Your task to perform on an android device: Show me the alarms in the clock app Image 0: 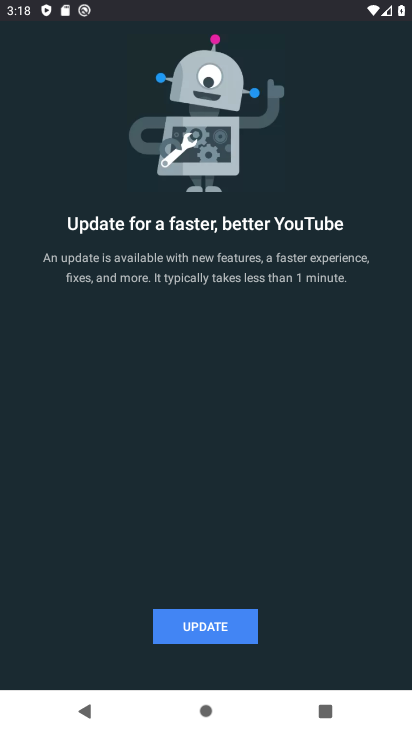
Step 0: press home button
Your task to perform on an android device: Show me the alarms in the clock app Image 1: 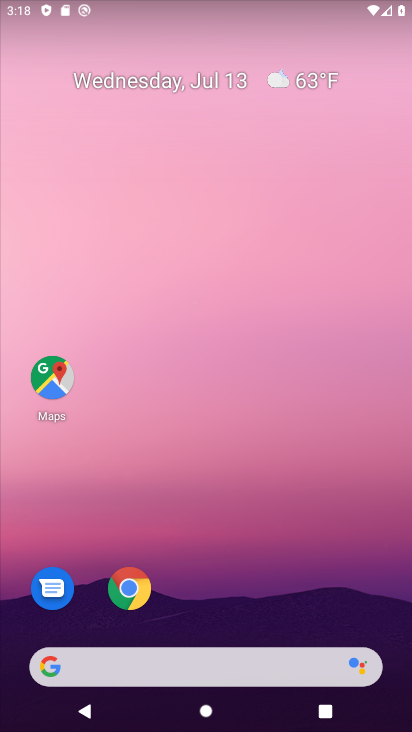
Step 1: drag from (300, 596) to (280, 3)
Your task to perform on an android device: Show me the alarms in the clock app Image 2: 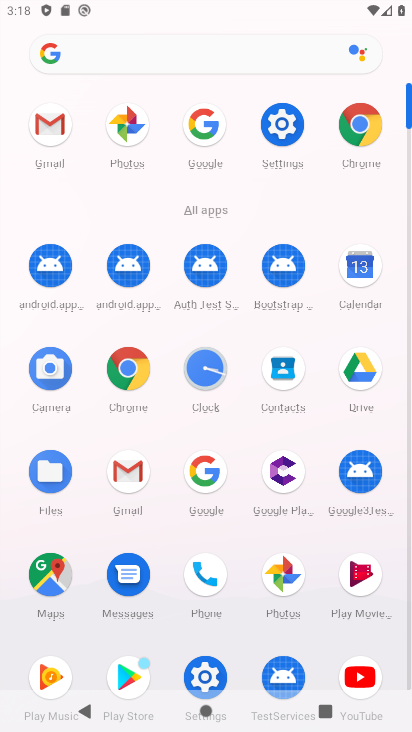
Step 2: click (206, 370)
Your task to perform on an android device: Show me the alarms in the clock app Image 3: 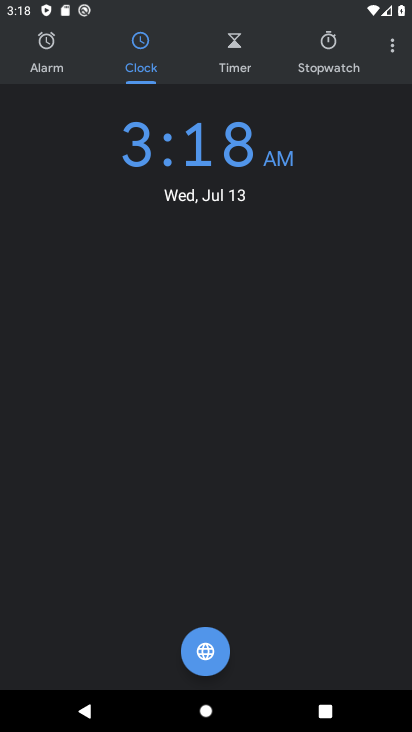
Step 3: click (40, 45)
Your task to perform on an android device: Show me the alarms in the clock app Image 4: 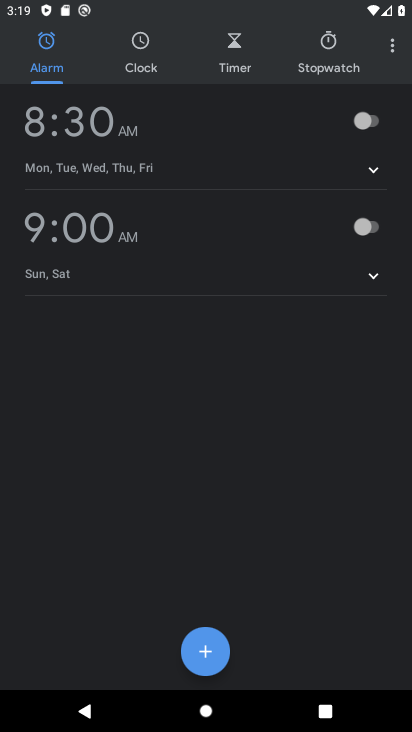
Step 4: task complete